Your task to perform on an android device: Open the Play Movies app and select the watchlist tab. Image 0: 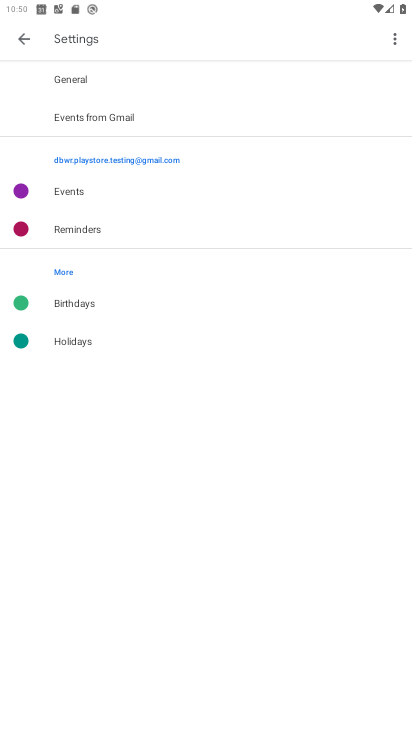
Step 0: press home button
Your task to perform on an android device: Open the Play Movies app and select the watchlist tab. Image 1: 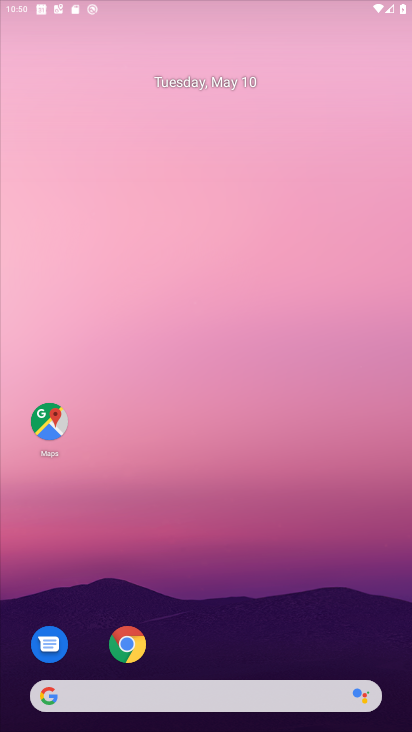
Step 1: drag from (303, 554) to (316, 47)
Your task to perform on an android device: Open the Play Movies app and select the watchlist tab. Image 2: 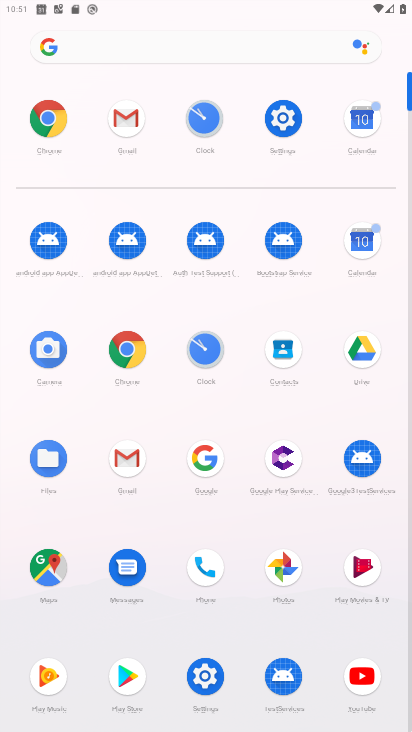
Step 2: drag from (275, 555) to (285, 242)
Your task to perform on an android device: Open the Play Movies app and select the watchlist tab. Image 3: 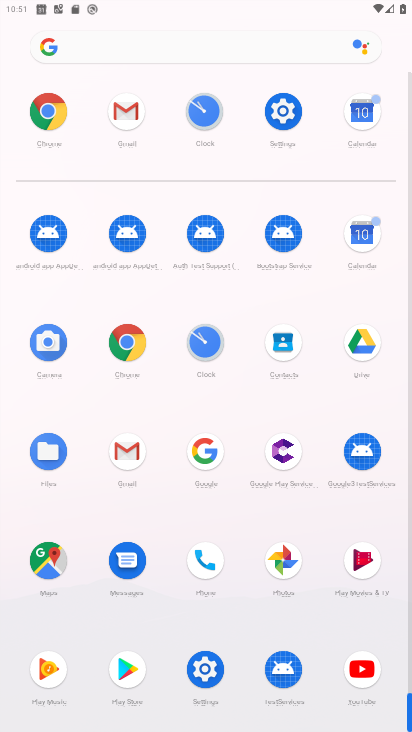
Step 3: click (362, 580)
Your task to perform on an android device: Open the Play Movies app and select the watchlist tab. Image 4: 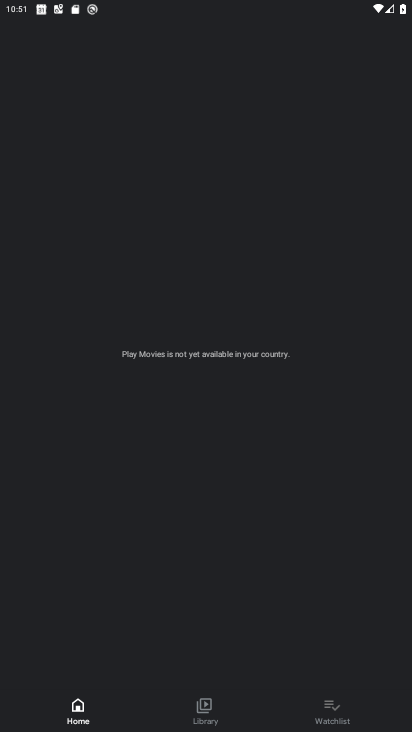
Step 4: click (340, 698)
Your task to perform on an android device: Open the Play Movies app and select the watchlist tab. Image 5: 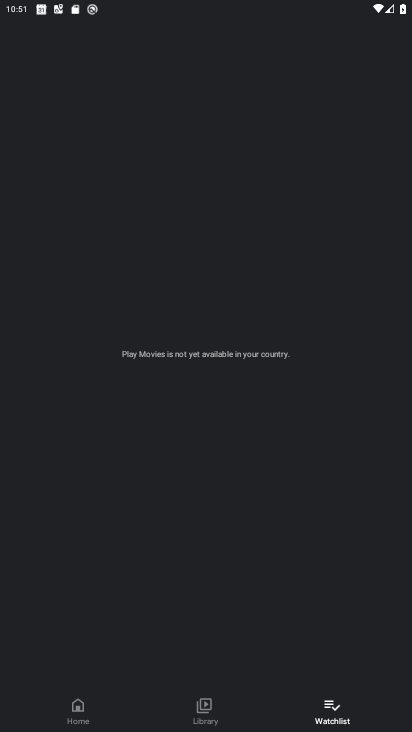
Step 5: task complete